Your task to perform on an android device: Turn off the flashlight Image 0: 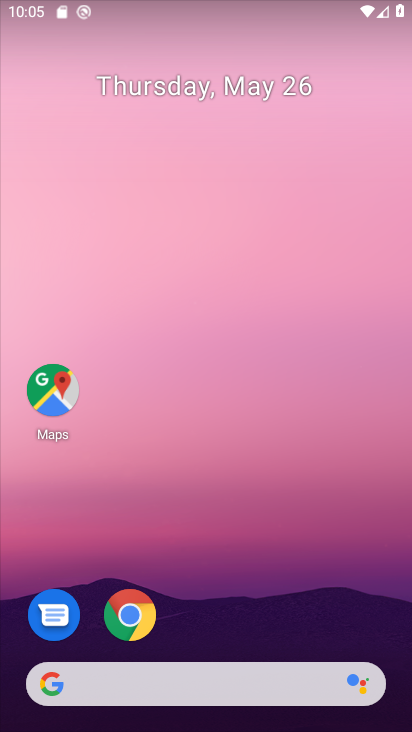
Step 0: press home button
Your task to perform on an android device: Turn off the flashlight Image 1: 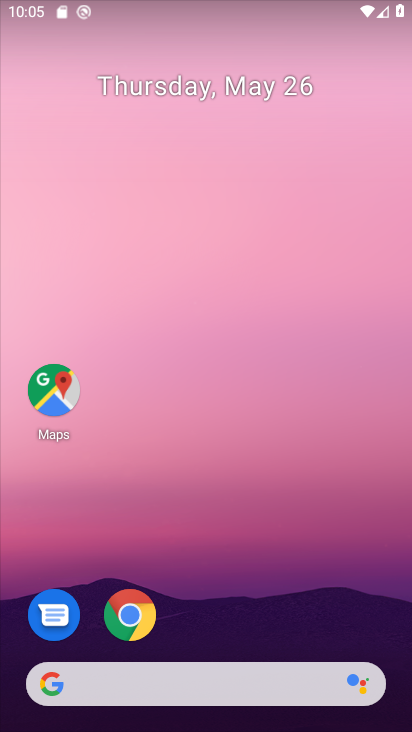
Step 1: drag from (268, 0) to (300, 463)
Your task to perform on an android device: Turn off the flashlight Image 2: 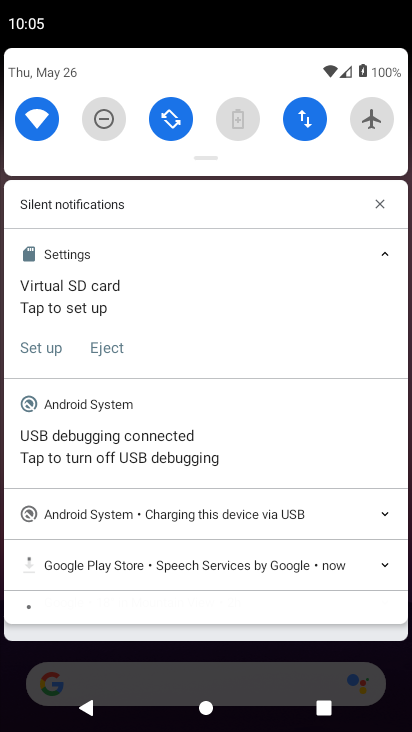
Step 2: drag from (232, 145) to (254, 558)
Your task to perform on an android device: Turn off the flashlight Image 3: 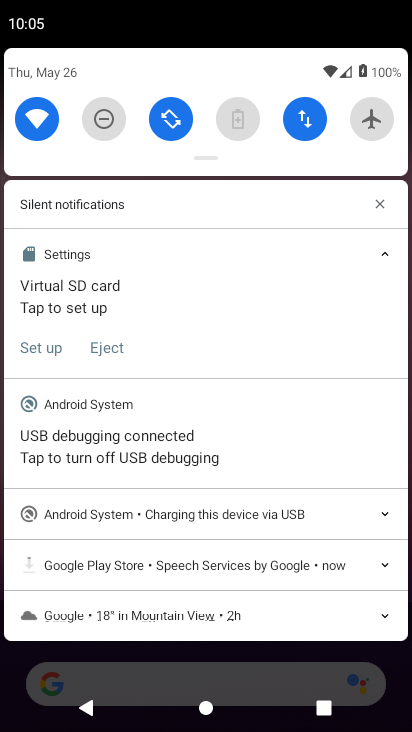
Step 3: drag from (199, 117) to (199, 710)
Your task to perform on an android device: Turn off the flashlight Image 4: 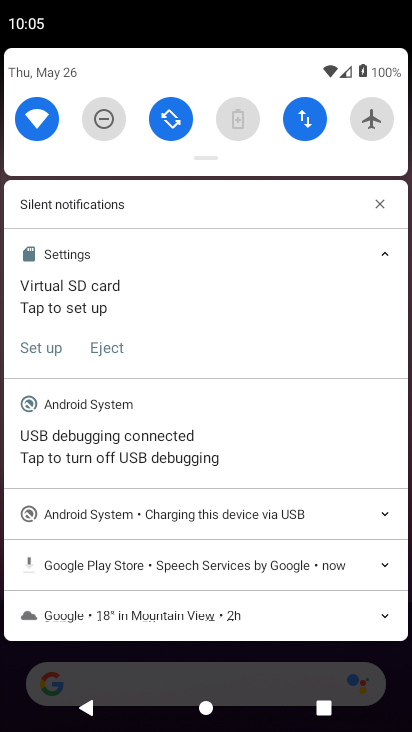
Step 4: drag from (204, 158) to (157, 646)
Your task to perform on an android device: Turn off the flashlight Image 5: 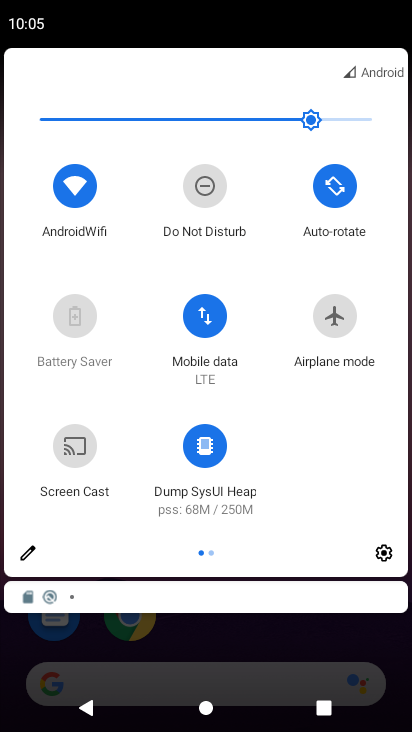
Step 5: click (31, 556)
Your task to perform on an android device: Turn off the flashlight Image 6: 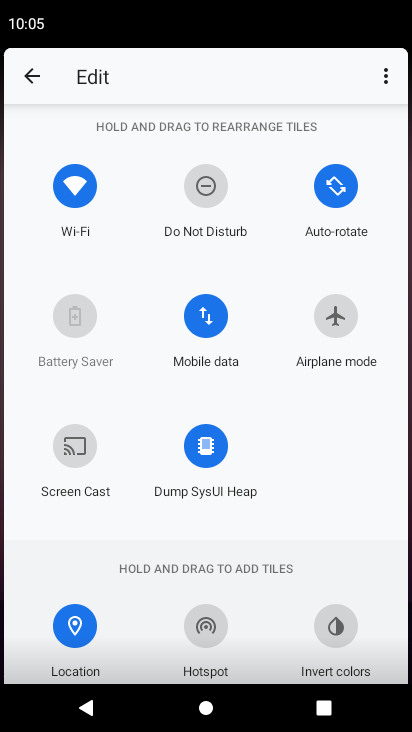
Step 6: task complete